Your task to perform on an android device: change your default location settings in chrome Image 0: 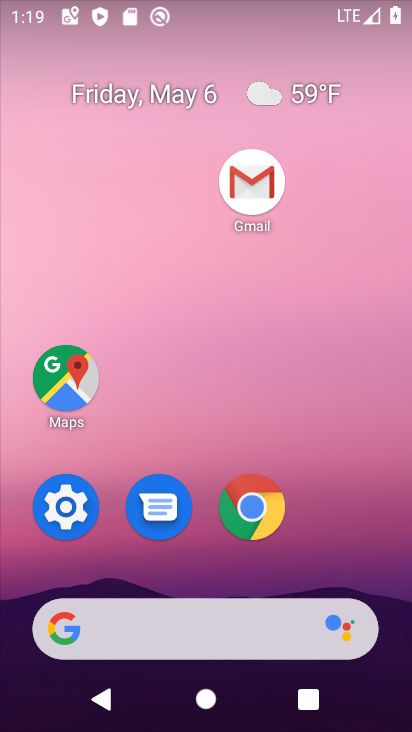
Step 0: click (255, 517)
Your task to perform on an android device: change your default location settings in chrome Image 1: 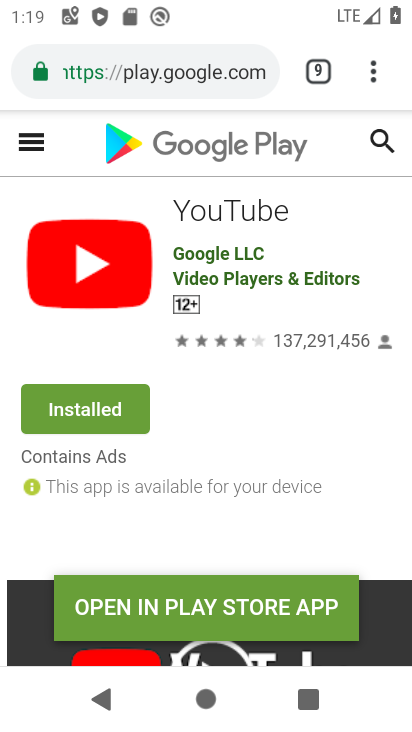
Step 1: click (370, 65)
Your task to perform on an android device: change your default location settings in chrome Image 2: 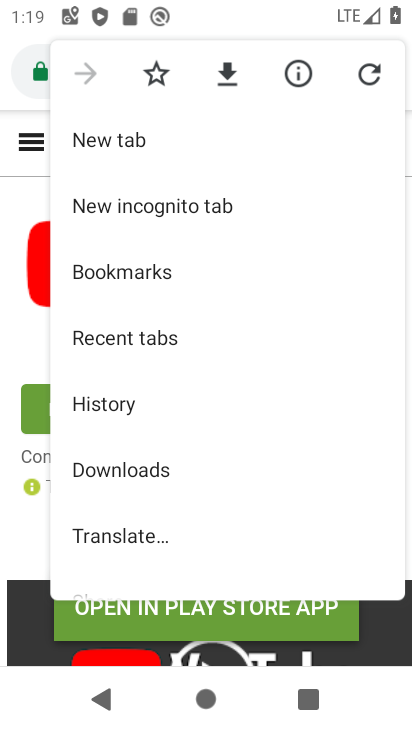
Step 2: drag from (211, 487) to (153, 185)
Your task to perform on an android device: change your default location settings in chrome Image 3: 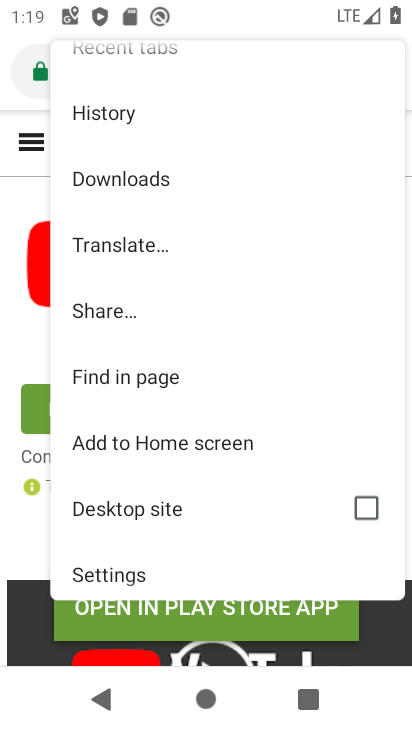
Step 3: click (123, 569)
Your task to perform on an android device: change your default location settings in chrome Image 4: 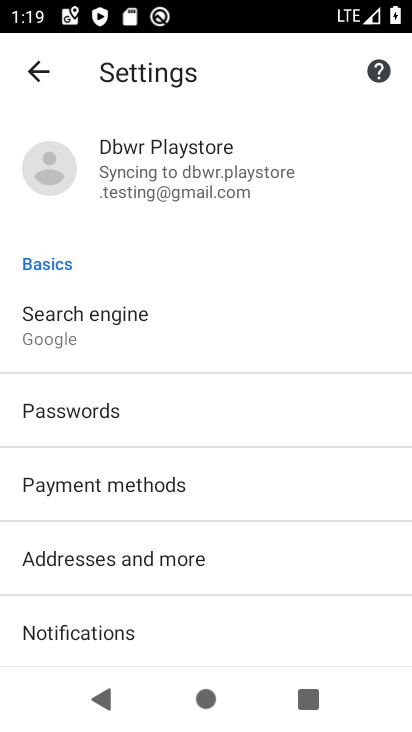
Step 4: drag from (193, 426) to (226, 43)
Your task to perform on an android device: change your default location settings in chrome Image 5: 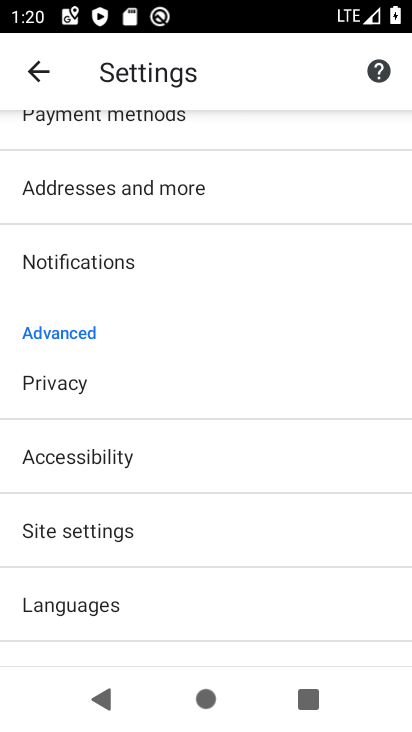
Step 5: click (112, 531)
Your task to perform on an android device: change your default location settings in chrome Image 6: 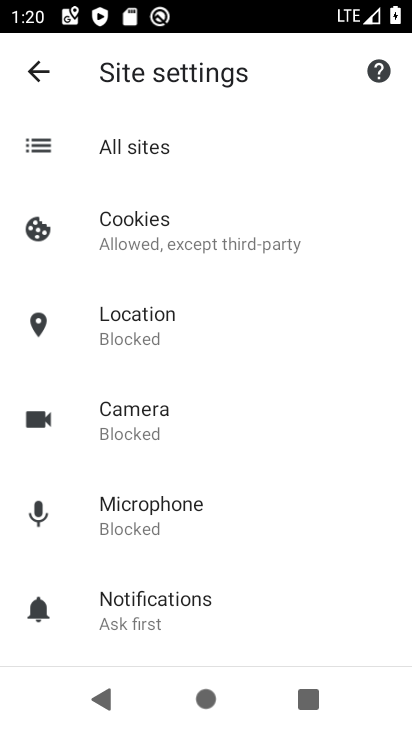
Step 6: click (118, 310)
Your task to perform on an android device: change your default location settings in chrome Image 7: 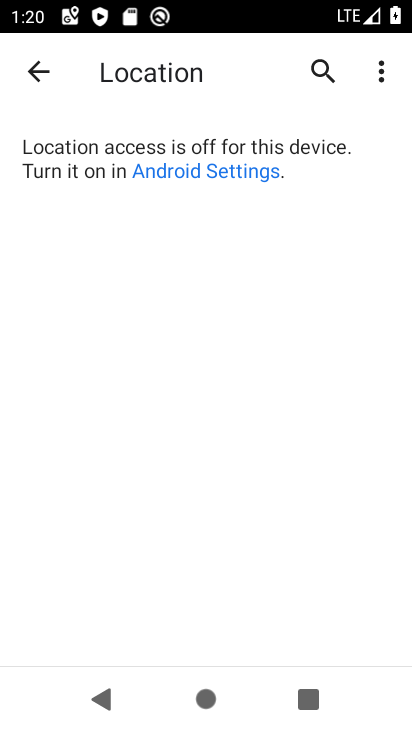
Step 7: click (174, 171)
Your task to perform on an android device: change your default location settings in chrome Image 8: 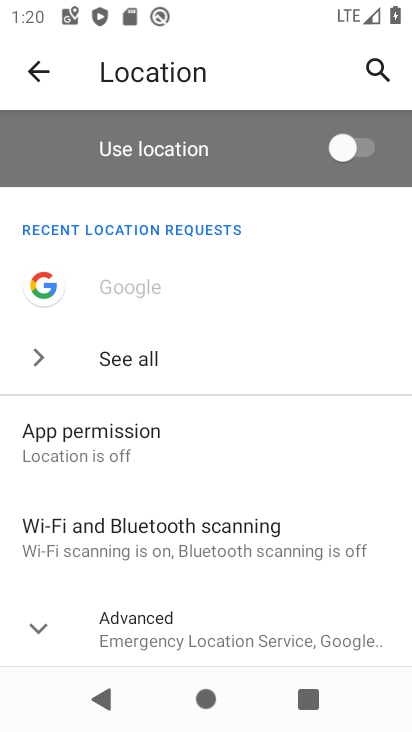
Step 8: click (340, 137)
Your task to perform on an android device: change your default location settings in chrome Image 9: 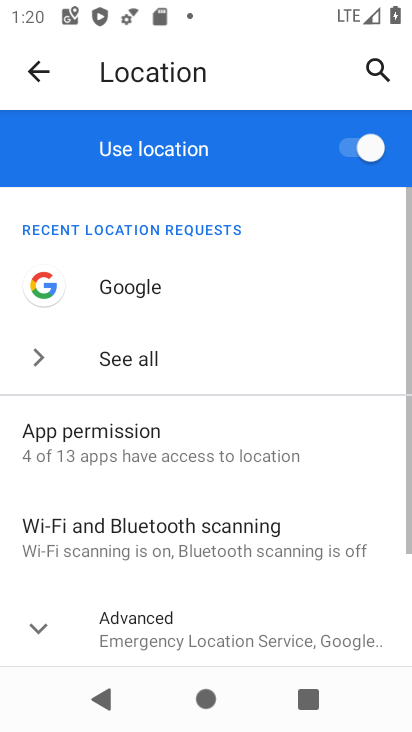
Step 9: task complete